Your task to perform on an android device: check battery use Image 0: 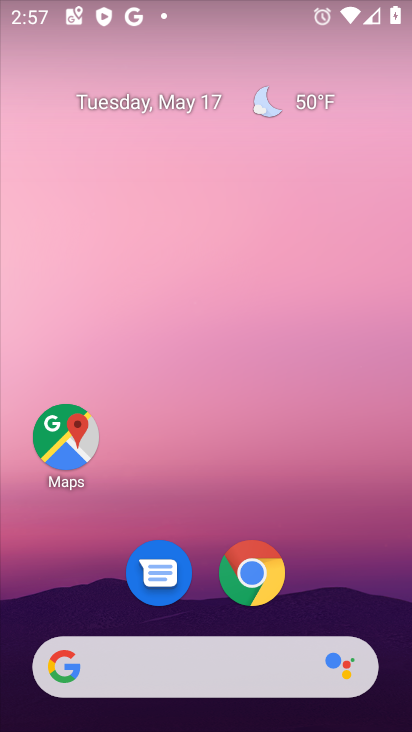
Step 0: drag from (357, 570) to (309, 155)
Your task to perform on an android device: check battery use Image 1: 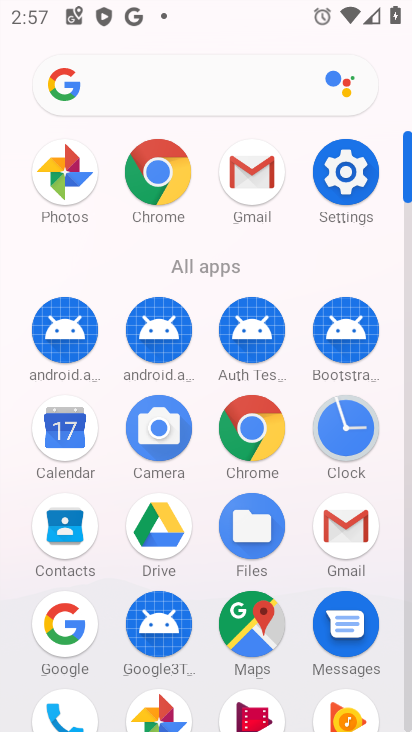
Step 1: click (364, 168)
Your task to perform on an android device: check battery use Image 2: 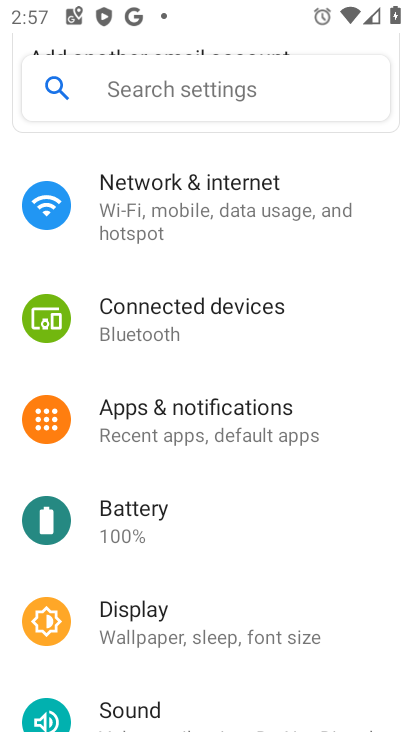
Step 2: drag from (284, 619) to (253, 465)
Your task to perform on an android device: check battery use Image 3: 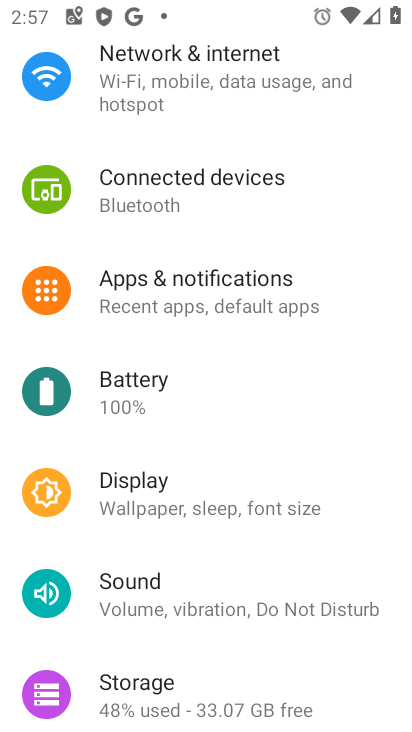
Step 3: click (127, 396)
Your task to perform on an android device: check battery use Image 4: 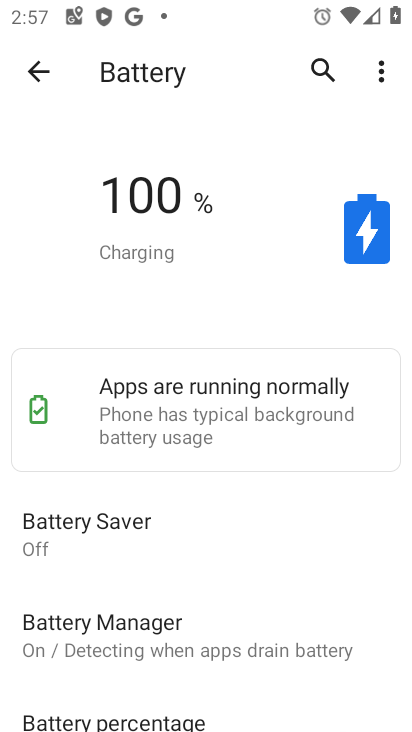
Step 4: click (383, 75)
Your task to perform on an android device: check battery use Image 5: 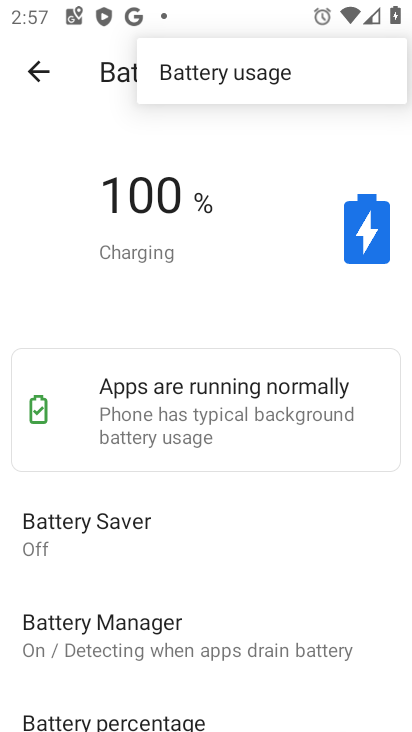
Step 5: click (264, 82)
Your task to perform on an android device: check battery use Image 6: 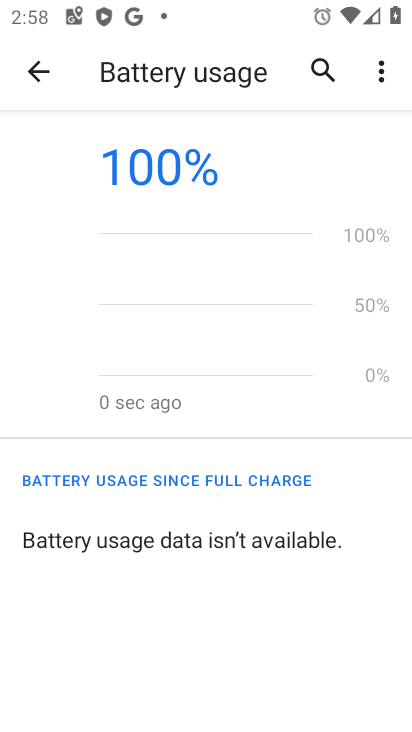
Step 6: task complete